Your task to perform on an android device: add a label to a message in the gmail app Image 0: 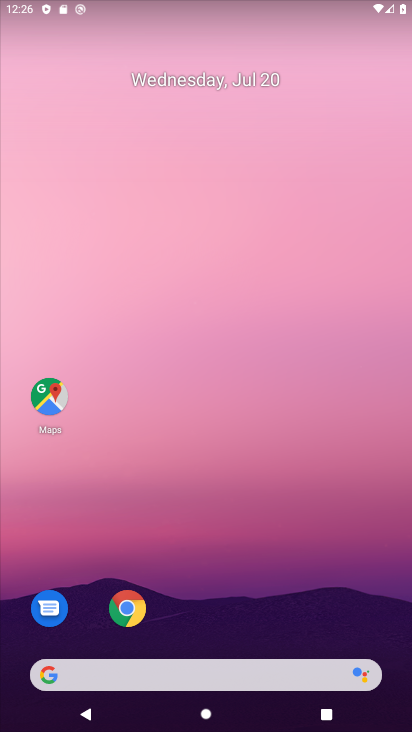
Step 0: drag from (266, 662) to (259, 194)
Your task to perform on an android device: add a label to a message in the gmail app Image 1: 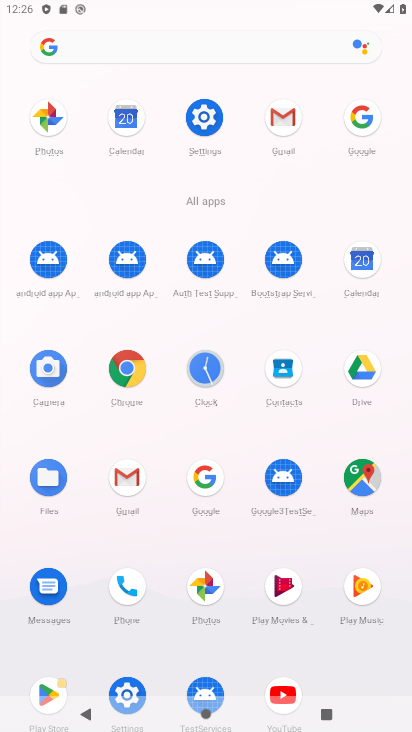
Step 1: click (291, 118)
Your task to perform on an android device: add a label to a message in the gmail app Image 2: 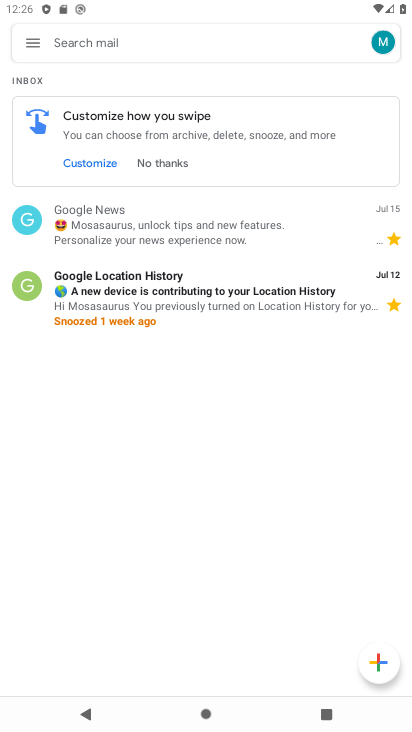
Step 2: click (170, 280)
Your task to perform on an android device: add a label to a message in the gmail app Image 3: 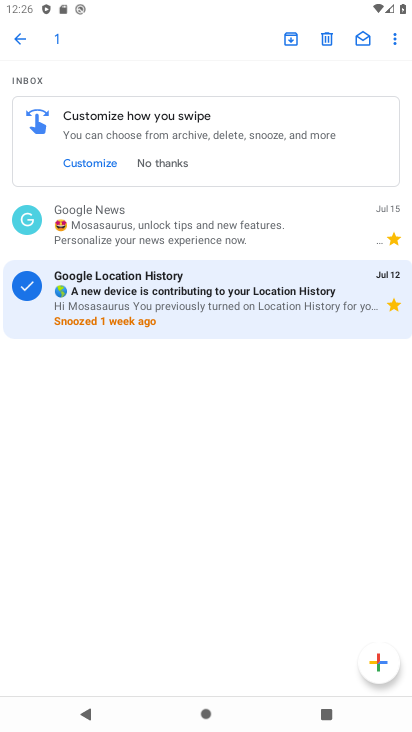
Step 3: click (394, 33)
Your task to perform on an android device: add a label to a message in the gmail app Image 4: 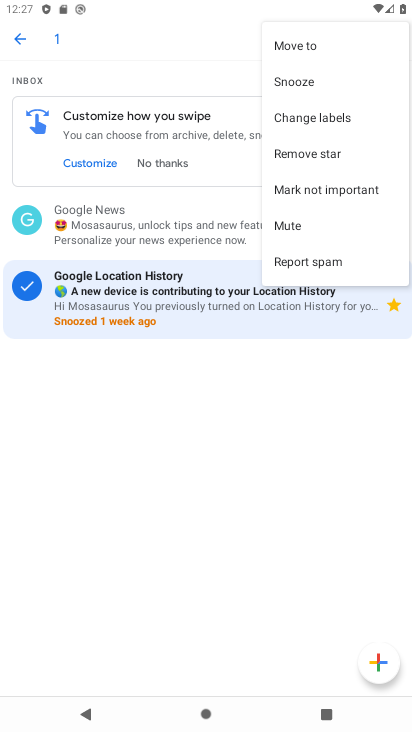
Step 4: click (290, 119)
Your task to perform on an android device: add a label to a message in the gmail app Image 5: 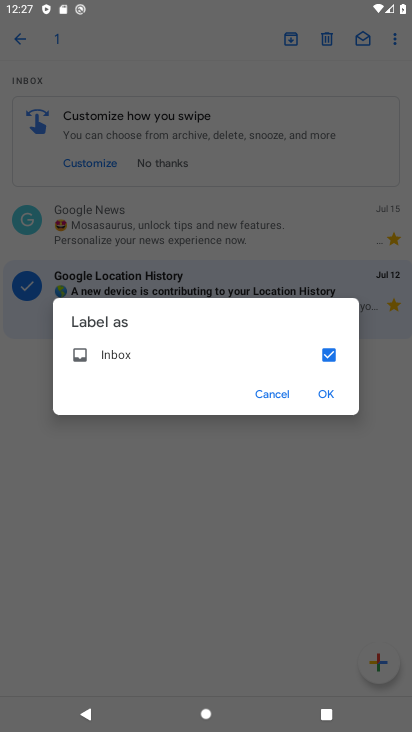
Step 5: click (319, 392)
Your task to perform on an android device: add a label to a message in the gmail app Image 6: 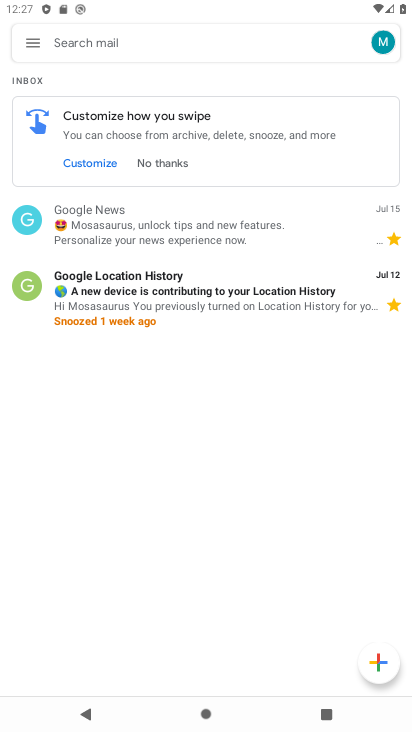
Step 6: task complete